Your task to perform on an android device: snooze an email in the gmail app Image 0: 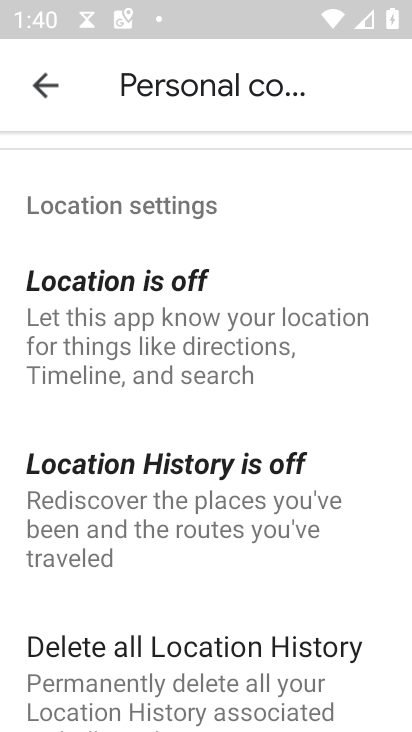
Step 0: press home button
Your task to perform on an android device: snooze an email in the gmail app Image 1: 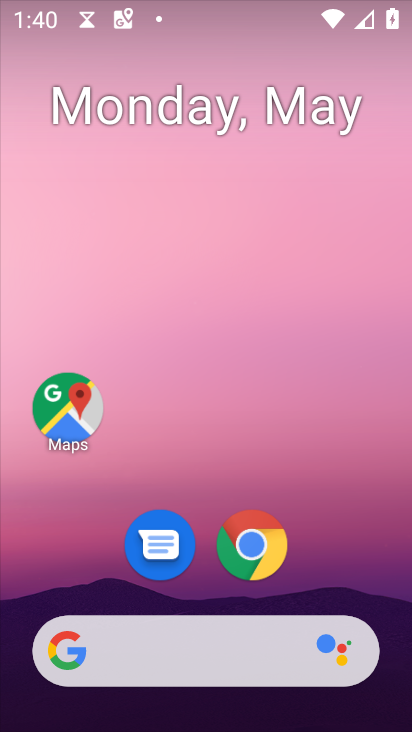
Step 1: drag from (235, 562) to (219, 166)
Your task to perform on an android device: snooze an email in the gmail app Image 2: 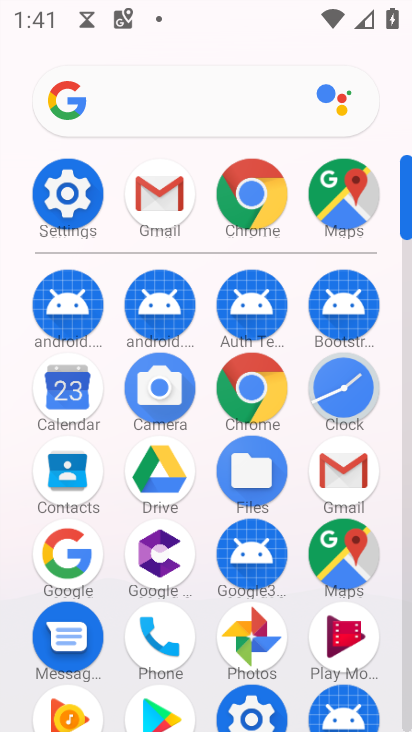
Step 2: click (325, 465)
Your task to perform on an android device: snooze an email in the gmail app Image 3: 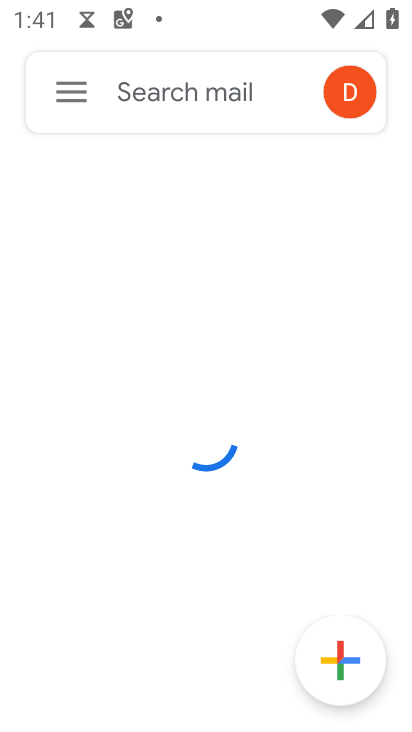
Step 3: click (80, 93)
Your task to perform on an android device: snooze an email in the gmail app Image 4: 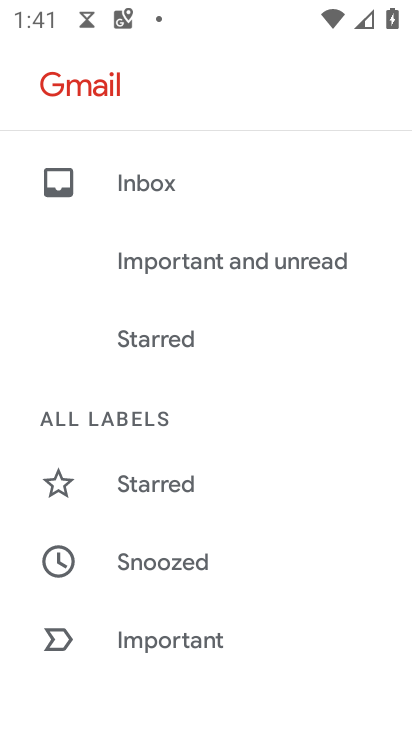
Step 4: drag from (190, 608) to (191, 545)
Your task to perform on an android device: snooze an email in the gmail app Image 5: 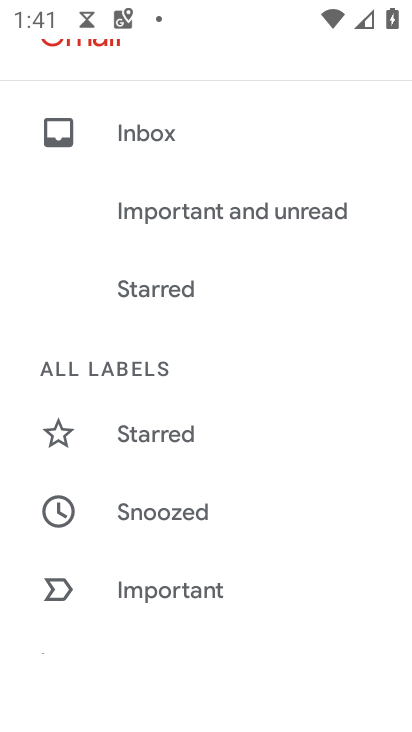
Step 5: click (171, 499)
Your task to perform on an android device: snooze an email in the gmail app Image 6: 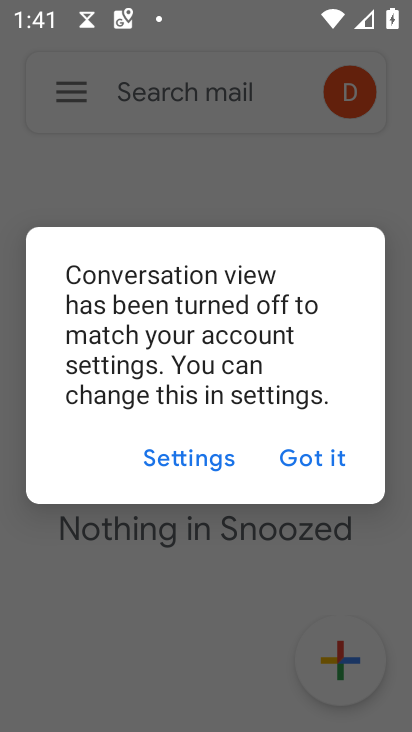
Step 6: click (333, 452)
Your task to perform on an android device: snooze an email in the gmail app Image 7: 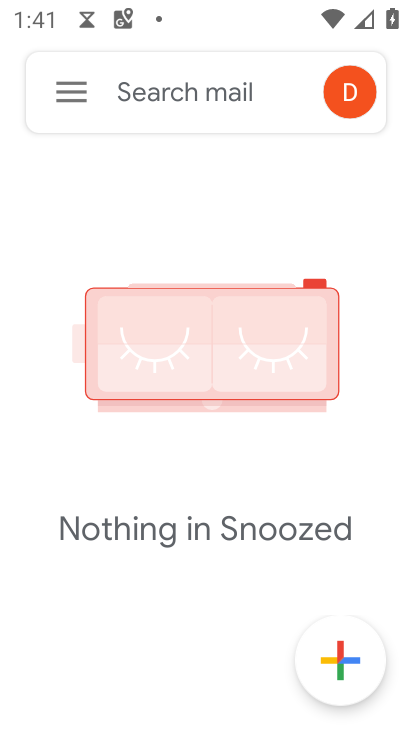
Step 7: task complete